Your task to perform on an android device: Add "alienware area 51" to the cart on amazon, then select checkout. Image 0: 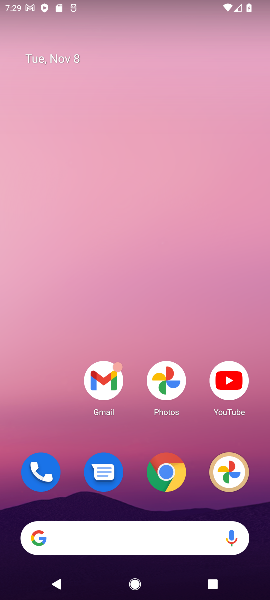
Step 0: click (167, 466)
Your task to perform on an android device: Add "alienware area 51" to the cart on amazon, then select checkout. Image 1: 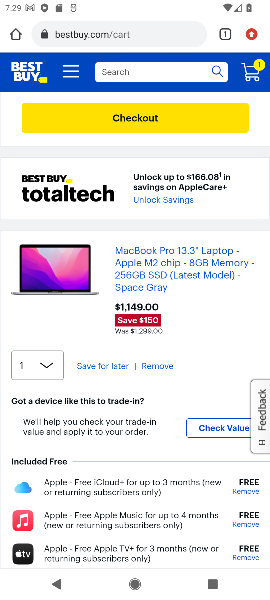
Step 1: click (141, 34)
Your task to perform on an android device: Add "alienware area 51" to the cart on amazon, then select checkout. Image 2: 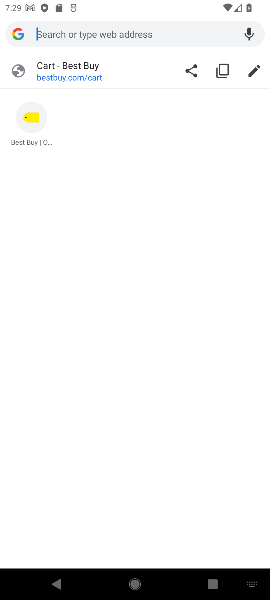
Step 2: click (136, 28)
Your task to perform on an android device: Add "alienware area 51" to the cart on amazon, then select checkout. Image 3: 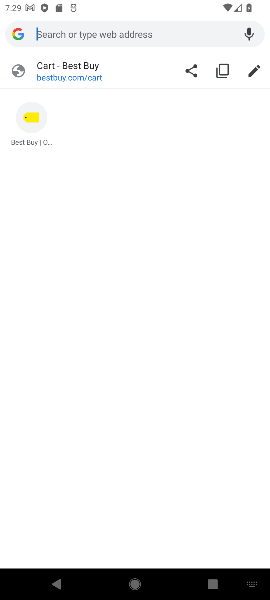
Step 3: type " amazon"
Your task to perform on an android device: Add "alienware area 51" to the cart on amazon, then select checkout. Image 4: 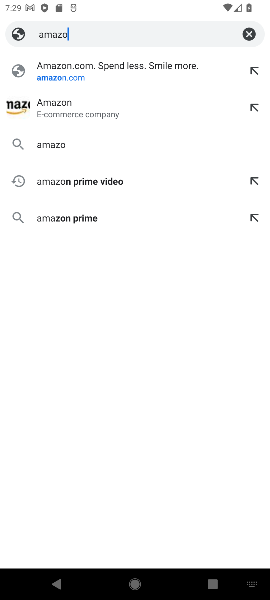
Step 4: press enter
Your task to perform on an android device: Add "alienware area 51" to the cart on amazon, then select checkout. Image 5: 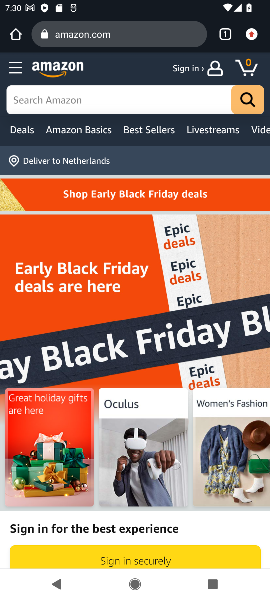
Step 5: click (27, 92)
Your task to perform on an android device: Add "alienware area 51" to the cart on amazon, then select checkout. Image 6: 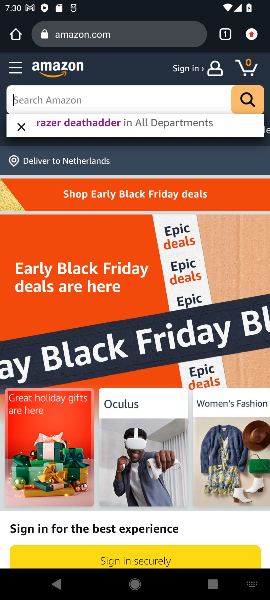
Step 6: type "alienware area 51"
Your task to perform on an android device: Add "alienware area 51" to the cart on amazon, then select checkout. Image 7: 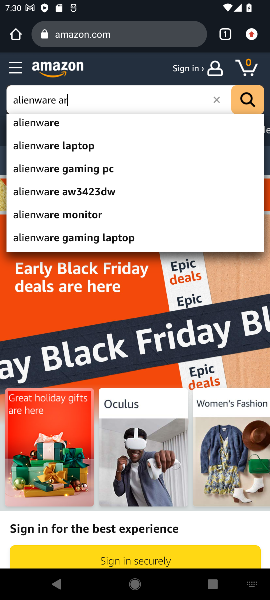
Step 7: press enter
Your task to perform on an android device: Add "alienware area 51" to the cart on amazon, then select checkout. Image 8: 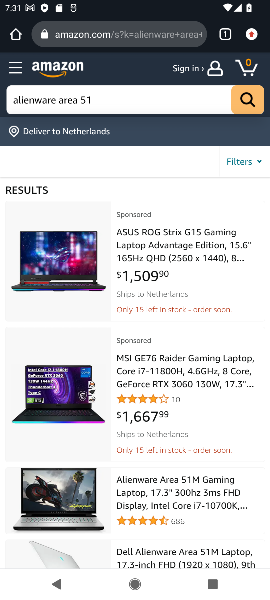
Step 8: drag from (96, 508) to (130, 317)
Your task to perform on an android device: Add "alienware area 51" to the cart on amazon, then select checkout. Image 9: 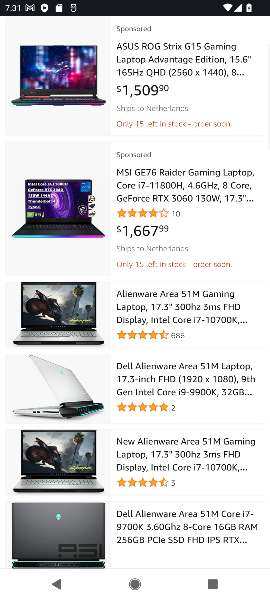
Step 9: click (186, 308)
Your task to perform on an android device: Add "alienware area 51" to the cart on amazon, then select checkout. Image 10: 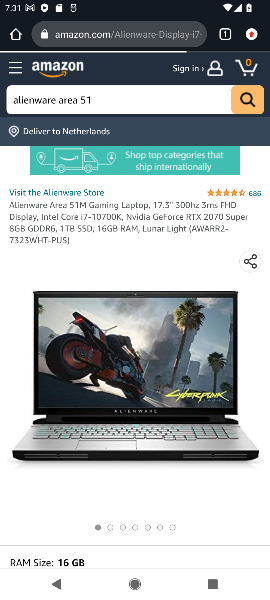
Step 10: task complete